Your task to perform on an android device: turn off notifications in google photos Image 0: 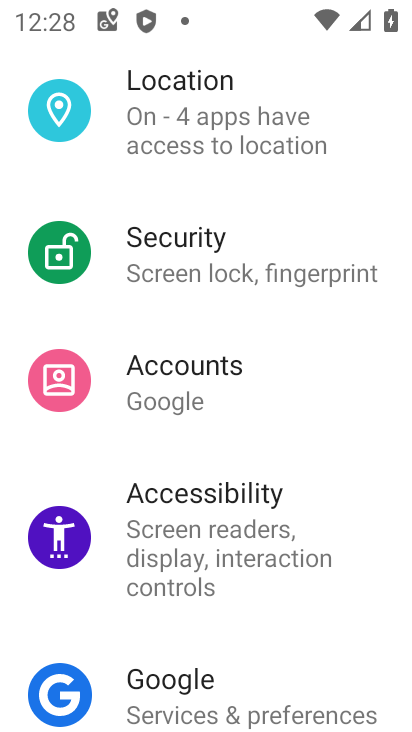
Step 0: press home button
Your task to perform on an android device: turn off notifications in google photos Image 1: 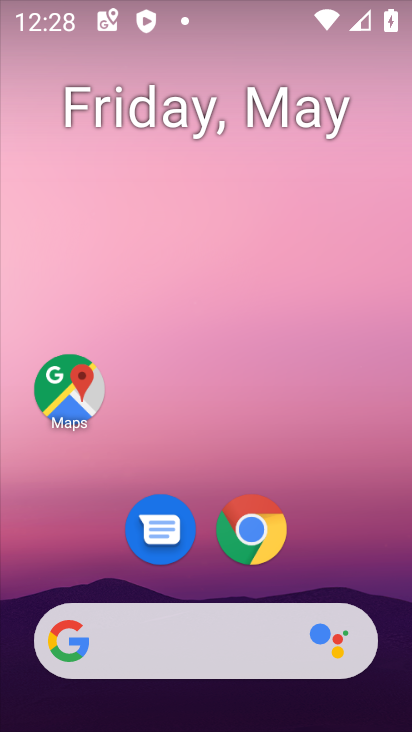
Step 1: drag from (346, 568) to (279, 30)
Your task to perform on an android device: turn off notifications in google photos Image 2: 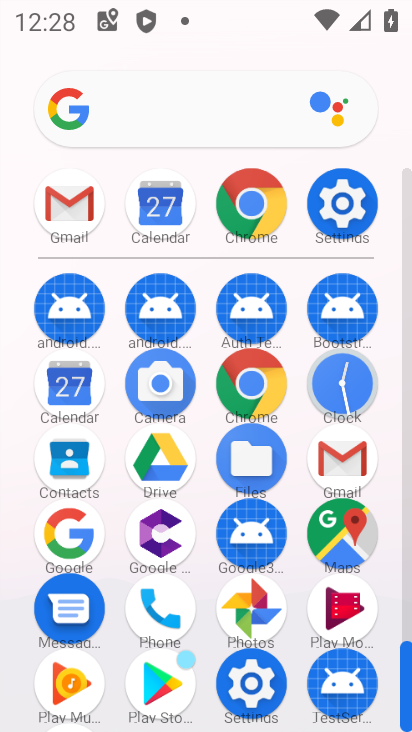
Step 2: click (245, 618)
Your task to perform on an android device: turn off notifications in google photos Image 3: 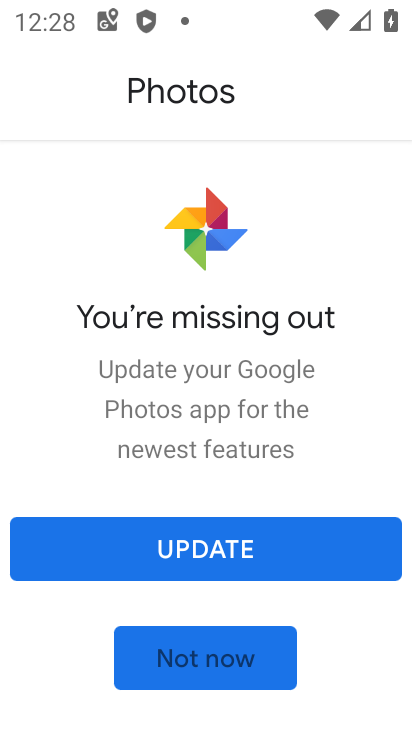
Step 3: click (244, 563)
Your task to perform on an android device: turn off notifications in google photos Image 4: 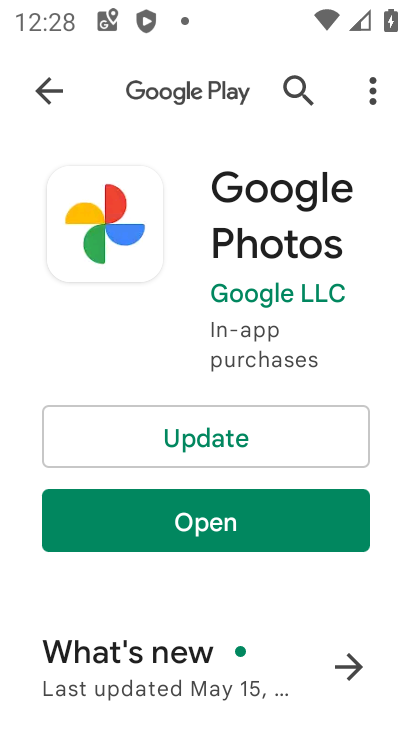
Step 4: click (218, 434)
Your task to perform on an android device: turn off notifications in google photos Image 5: 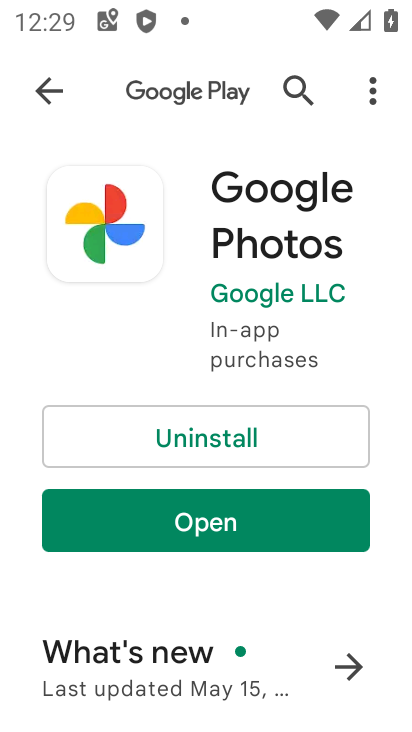
Step 5: click (233, 497)
Your task to perform on an android device: turn off notifications in google photos Image 6: 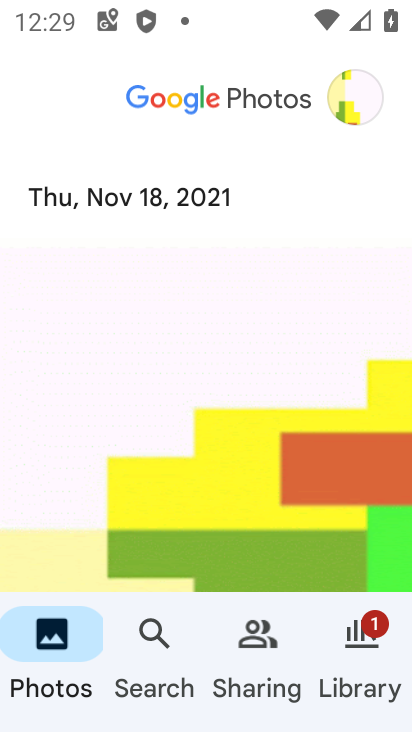
Step 6: click (367, 683)
Your task to perform on an android device: turn off notifications in google photos Image 7: 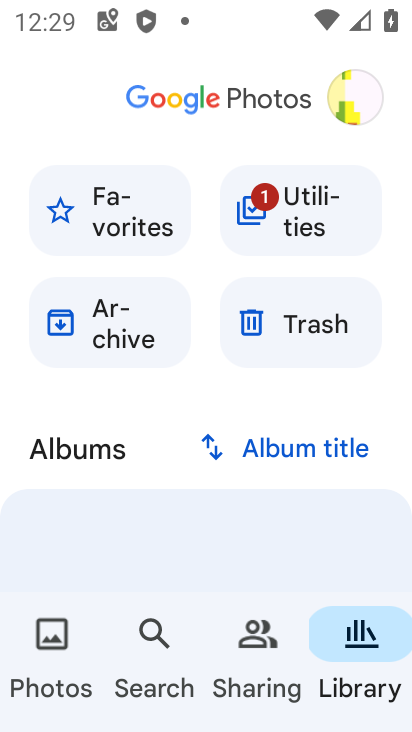
Step 7: click (350, 115)
Your task to perform on an android device: turn off notifications in google photos Image 8: 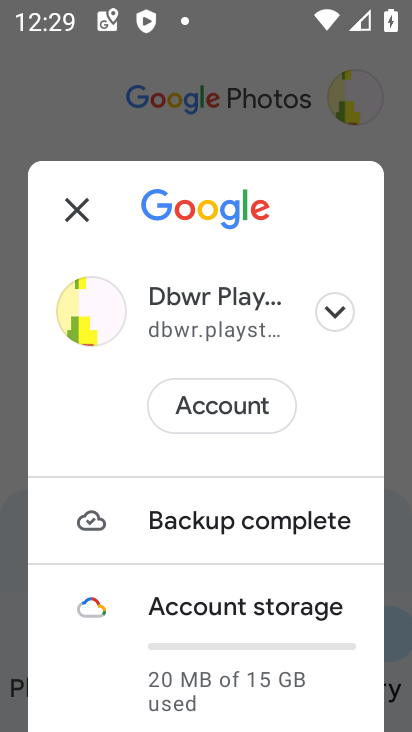
Step 8: drag from (174, 623) to (192, 336)
Your task to perform on an android device: turn off notifications in google photos Image 9: 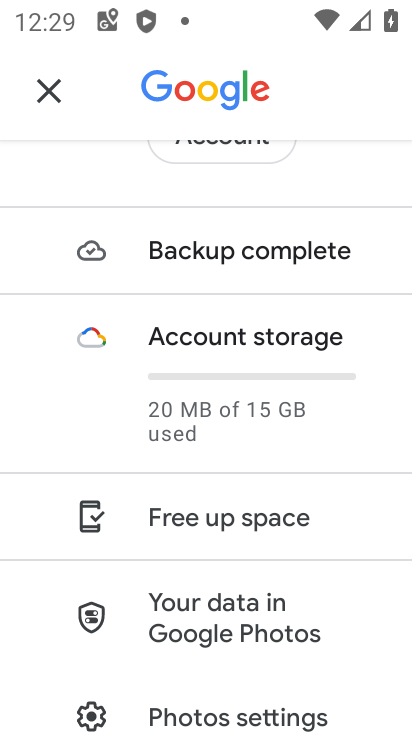
Step 9: drag from (216, 697) to (221, 385)
Your task to perform on an android device: turn off notifications in google photos Image 10: 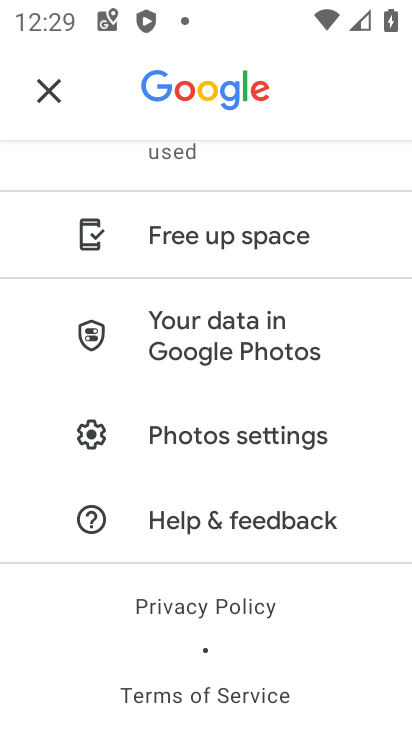
Step 10: click (319, 437)
Your task to perform on an android device: turn off notifications in google photos Image 11: 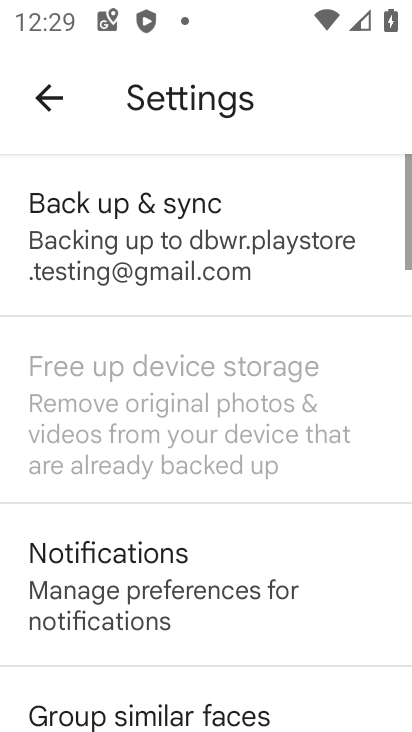
Step 11: task complete